Your task to perform on an android device: toggle javascript in the chrome app Image 0: 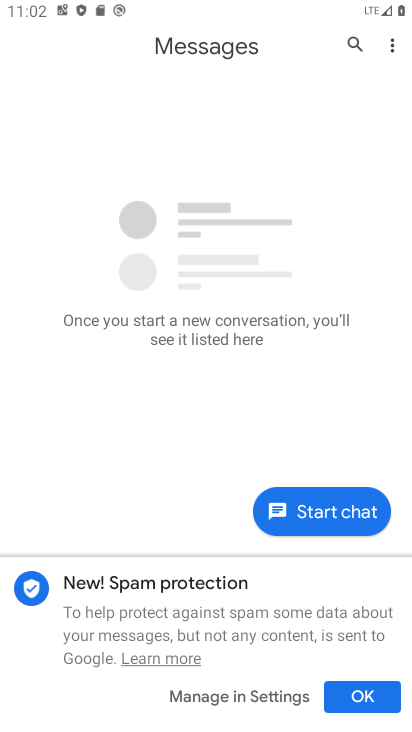
Step 0: press home button
Your task to perform on an android device: toggle javascript in the chrome app Image 1: 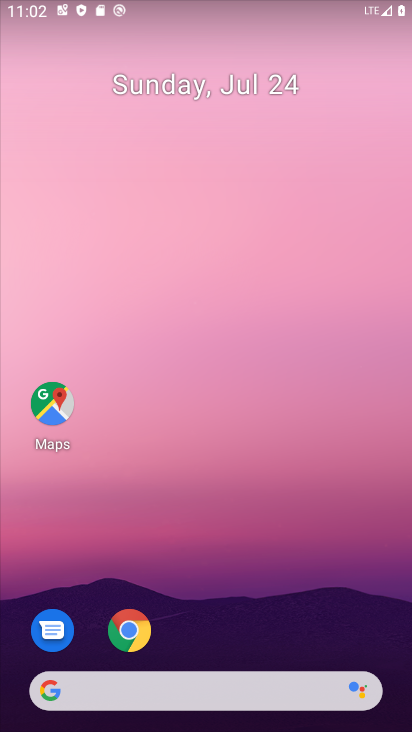
Step 1: click (138, 632)
Your task to perform on an android device: toggle javascript in the chrome app Image 2: 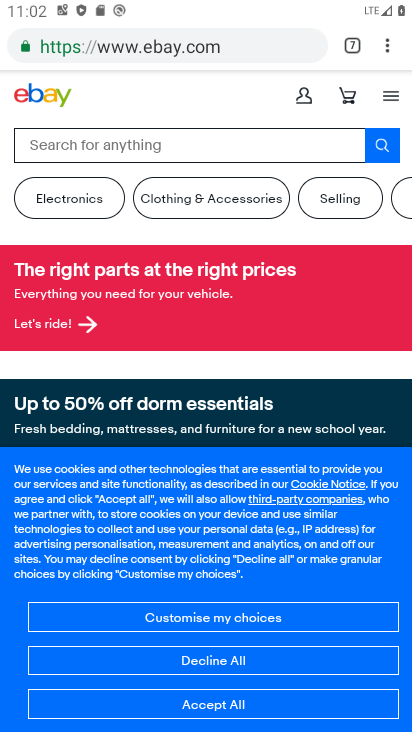
Step 2: click (380, 37)
Your task to perform on an android device: toggle javascript in the chrome app Image 3: 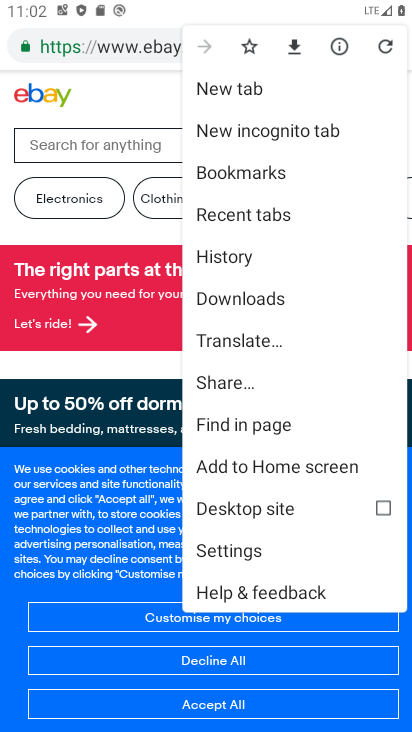
Step 3: click (244, 549)
Your task to perform on an android device: toggle javascript in the chrome app Image 4: 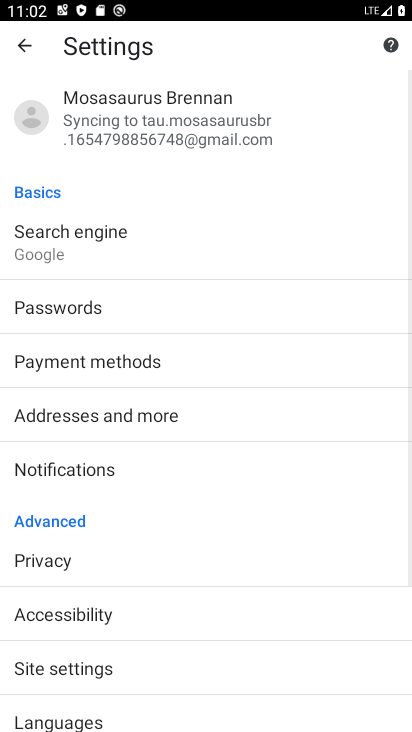
Step 4: drag from (123, 639) to (155, 218)
Your task to perform on an android device: toggle javascript in the chrome app Image 5: 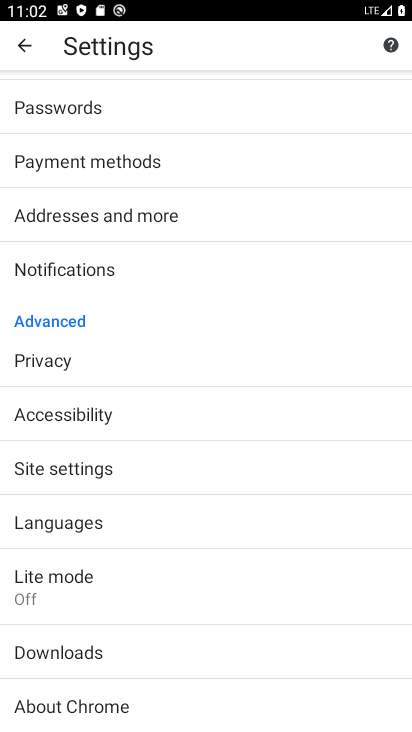
Step 5: click (115, 473)
Your task to perform on an android device: toggle javascript in the chrome app Image 6: 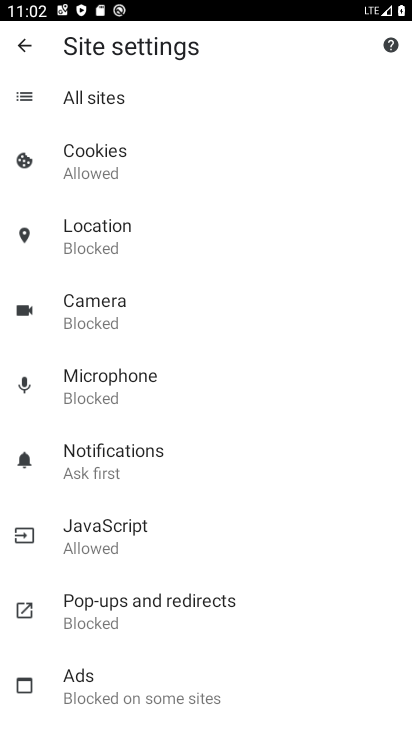
Step 6: click (162, 539)
Your task to perform on an android device: toggle javascript in the chrome app Image 7: 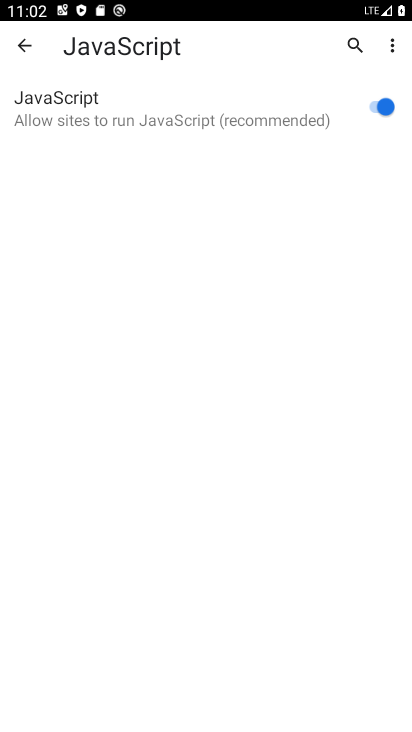
Step 7: click (377, 110)
Your task to perform on an android device: toggle javascript in the chrome app Image 8: 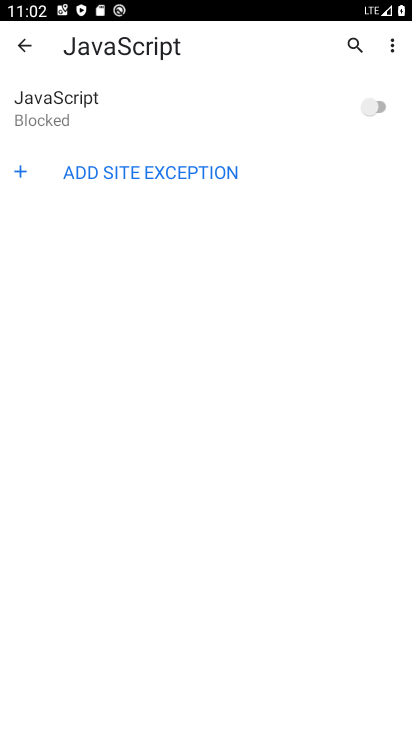
Step 8: task complete